Your task to perform on an android device: turn on sleep mode Image 0: 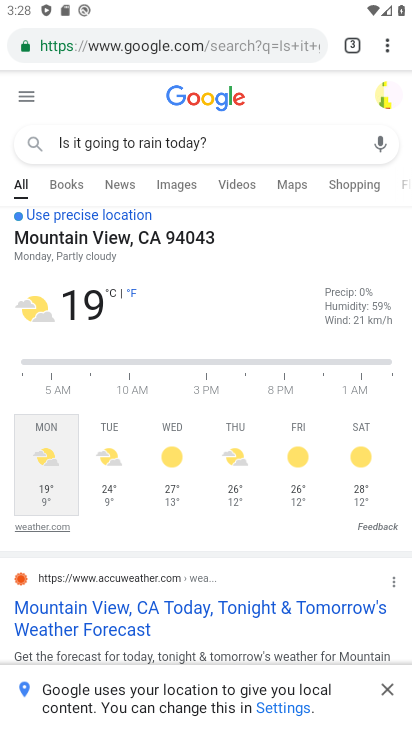
Step 0: press home button
Your task to perform on an android device: turn on sleep mode Image 1: 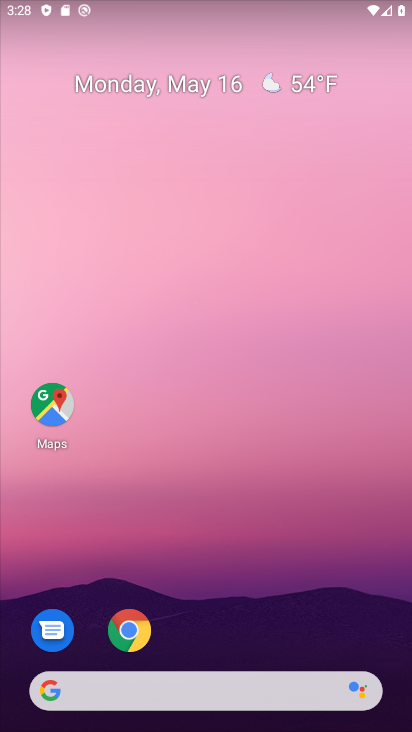
Step 1: drag from (268, 619) to (245, 25)
Your task to perform on an android device: turn on sleep mode Image 2: 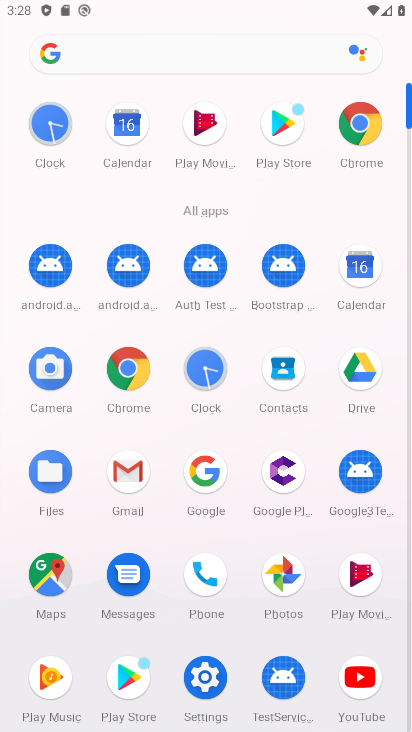
Step 2: click (209, 667)
Your task to perform on an android device: turn on sleep mode Image 3: 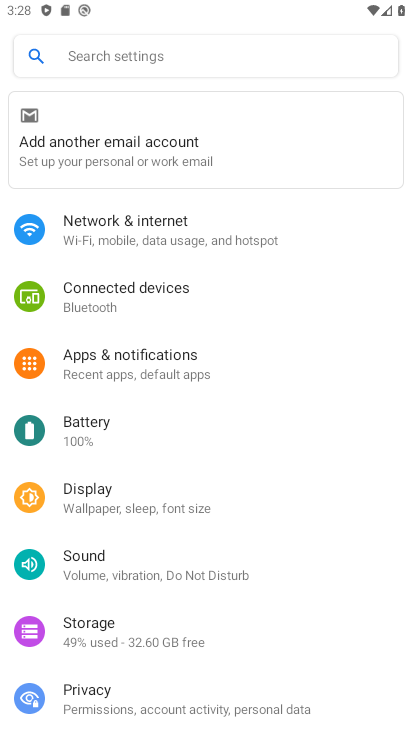
Step 3: click (243, 521)
Your task to perform on an android device: turn on sleep mode Image 4: 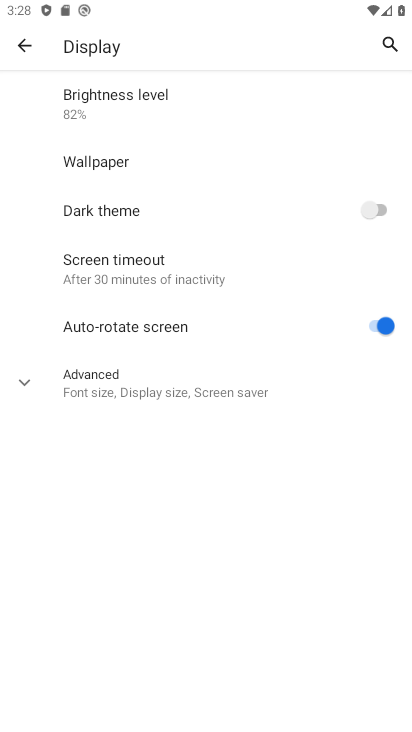
Step 4: click (243, 388)
Your task to perform on an android device: turn on sleep mode Image 5: 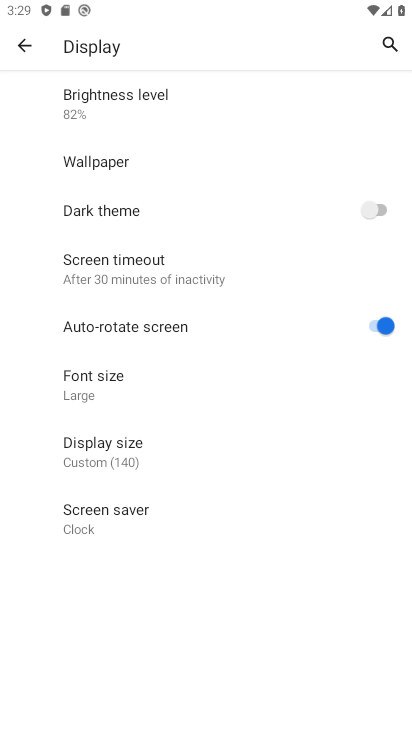
Step 5: task complete